Your task to perform on an android device: turn on priority inbox in the gmail app Image 0: 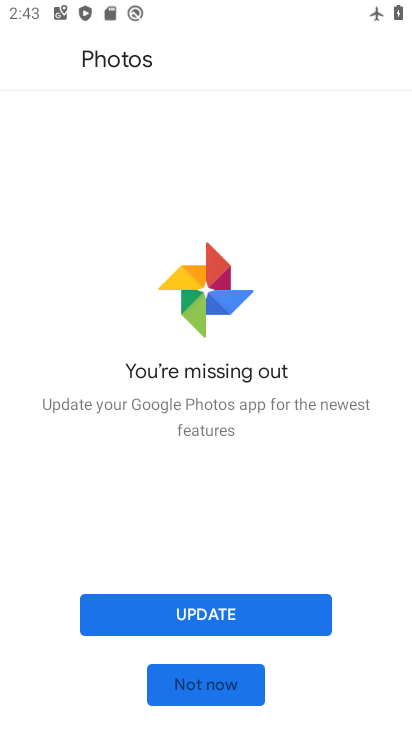
Step 0: press back button
Your task to perform on an android device: turn on priority inbox in the gmail app Image 1: 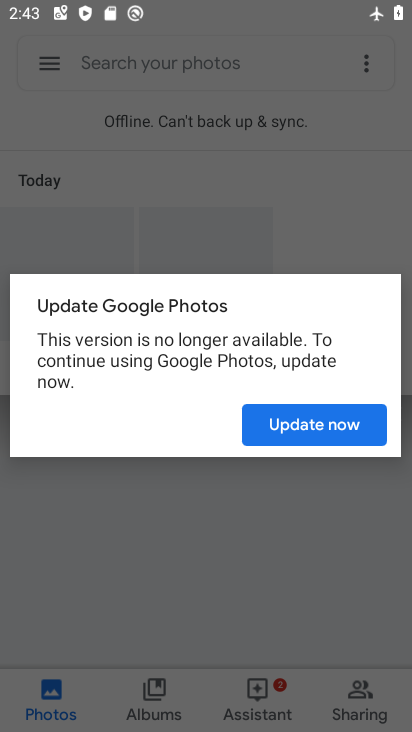
Step 1: press home button
Your task to perform on an android device: turn on priority inbox in the gmail app Image 2: 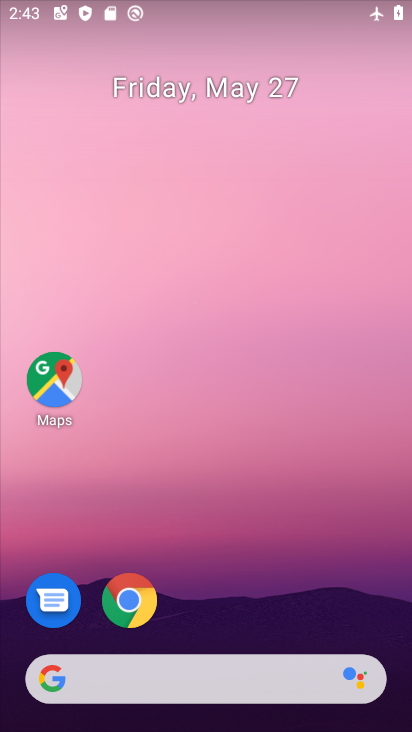
Step 2: drag from (338, 464) to (255, 0)
Your task to perform on an android device: turn on priority inbox in the gmail app Image 3: 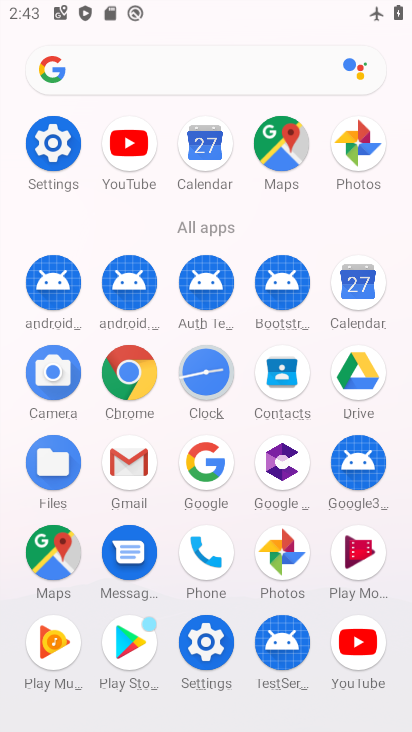
Step 3: click (135, 456)
Your task to perform on an android device: turn on priority inbox in the gmail app Image 4: 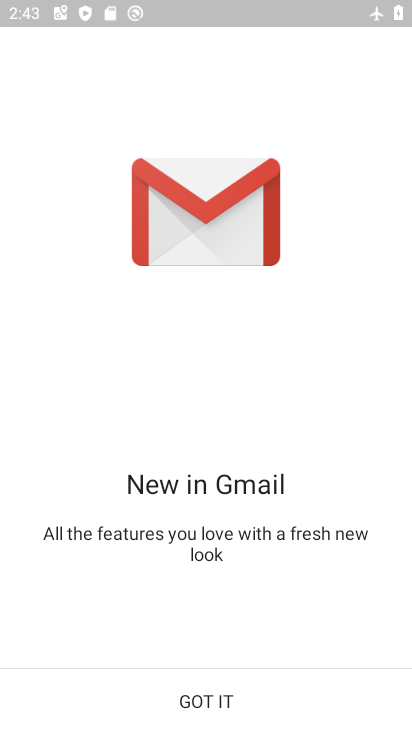
Step 4: click (211, 691)
Your task to perform on an android device: turn on priority inbox in the gmail app Image 5: 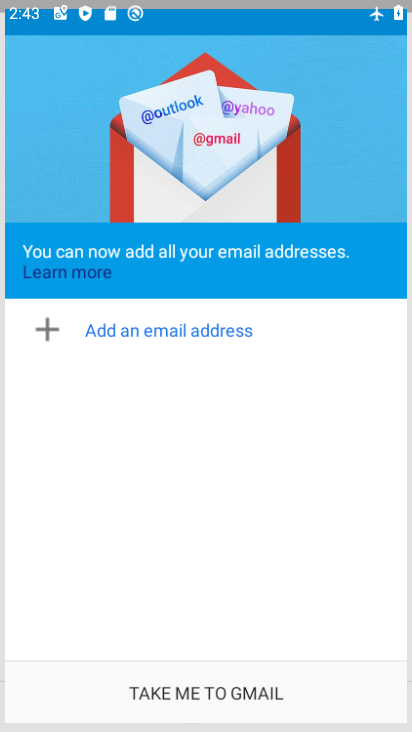
Step 5: click (211, 691)
Your task to perform on an android device: turn on priority inbox in the gmail app Image 6: 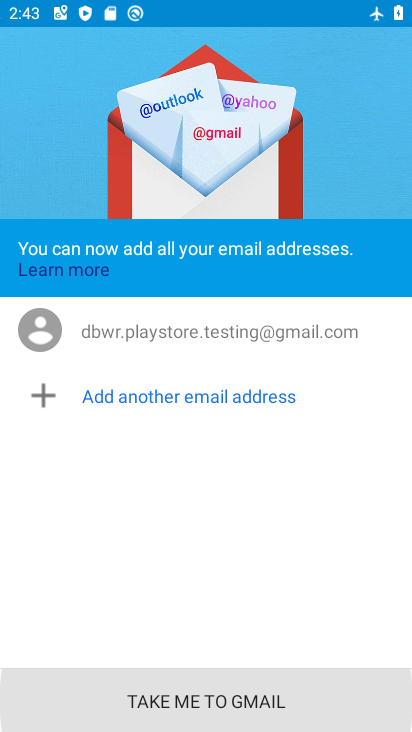
Step 6: click (211, 691)
Your task to perform on an android device: turn on priority inbox in the gmail app Image 7: 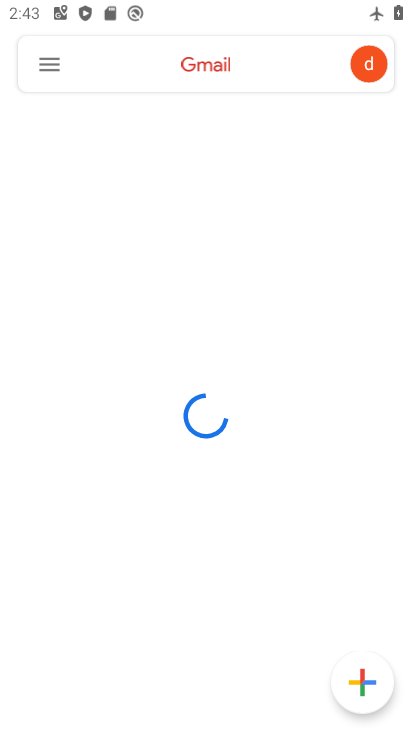
Step 7: click (173, 700)
Your task to perform on an android device: turn on priority inbox in the gmail app Image 8: 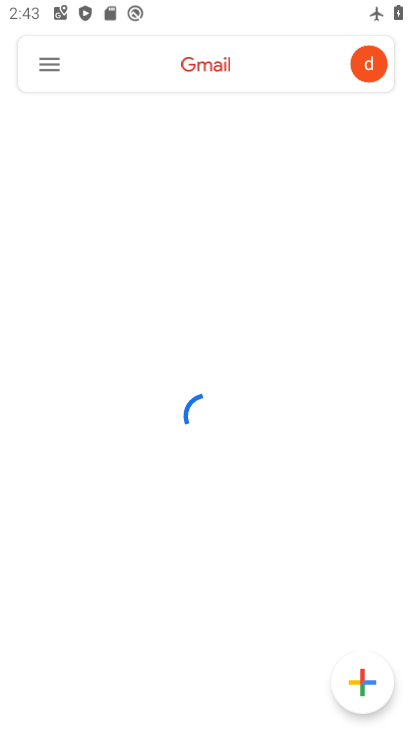
Step 8: click (47, 54)
Your task to perform on an android device: turn on priority inbox in the gmail app Image 9: 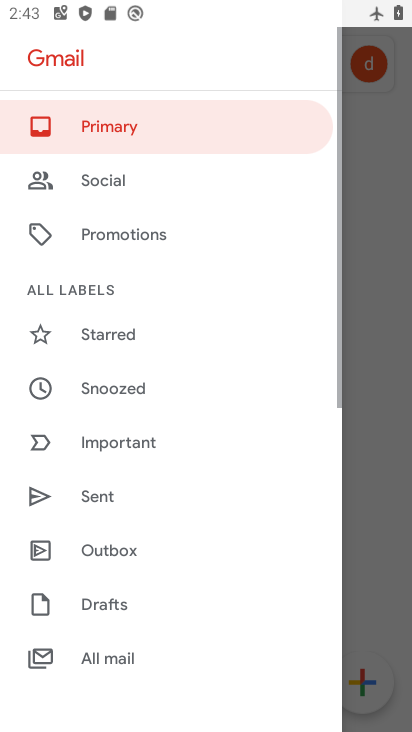
Step 9: click (118, 281)
Your task to perform on an android device: turn on priority inbox in the gmail app Image 10: 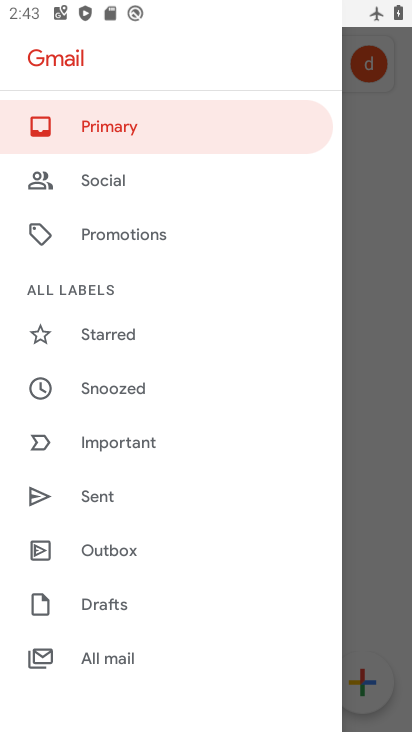
Step 10: drag from (118, 281) to (112, 38)
Your task to perform on an android device: turn on priority inbox in the gmail app Image 11: 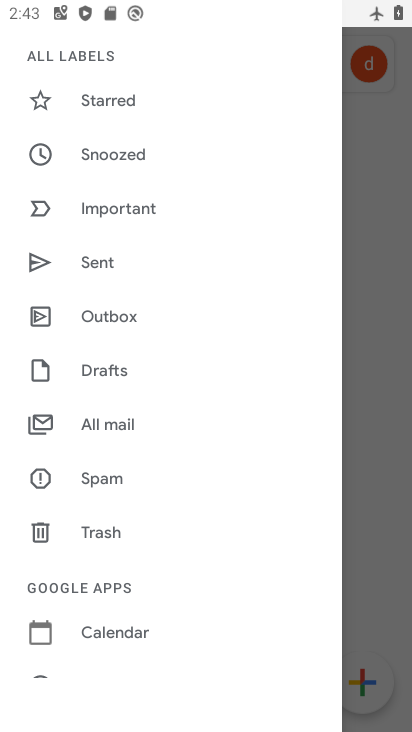
Step 11: drag from (159, 622) to (158, 346)
Your task to perform on an android device: turn on priority inbox in the gmail app Image 12: 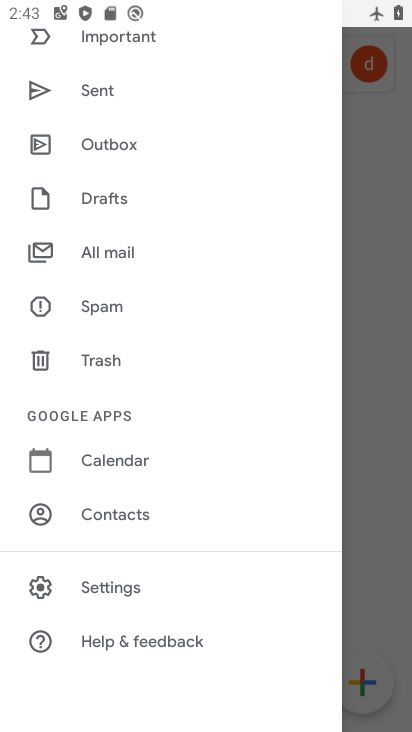
Step 12: click (178, 590)
Your task to perform on an android device: turn on priority inbox in the gmail app Image 13: 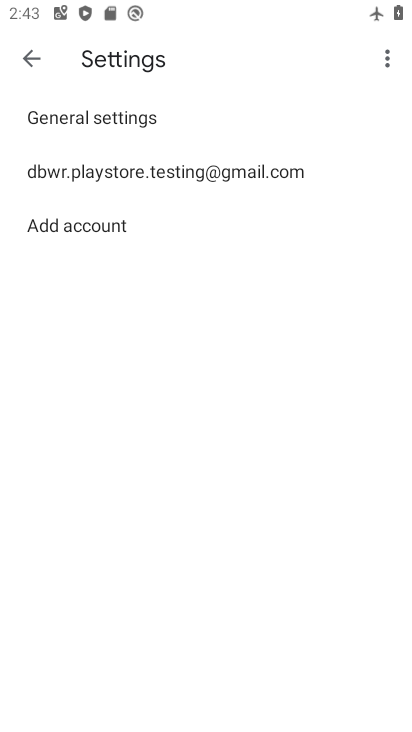
Step 13: click (270, 163)
Your task to perform on an android device: turn on priority inbox in the gmail app Image 14: 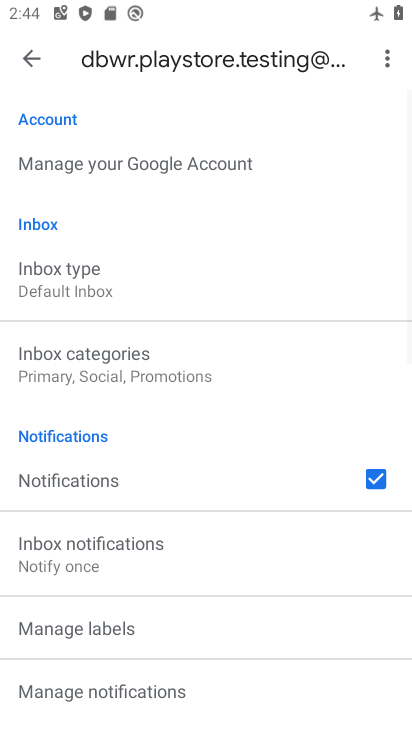
Step 14: click (176, 279)
Your task to perform on an android device: turn on priority inbox in the gmail app Image 15: 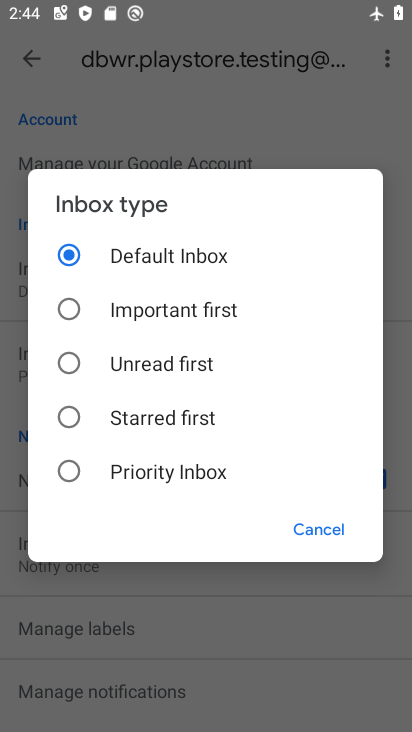
Step 15: click (112, 482)
Your task to perform on an android device: turn on priority inbox in the gmail app Image 16: 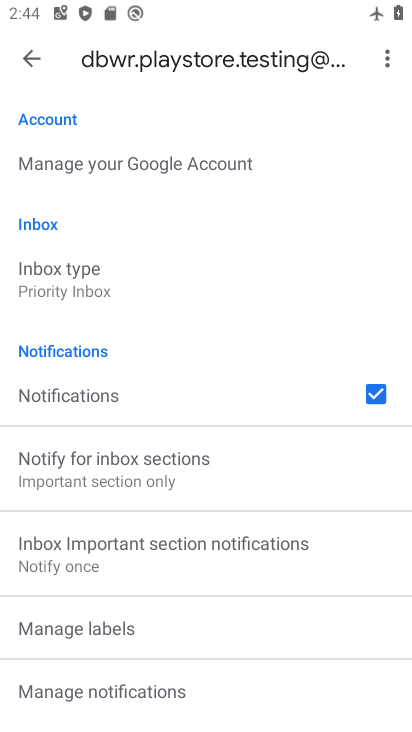
Step 16: task complete